Your task to perform on an android device: Open Google Maps Image 0: 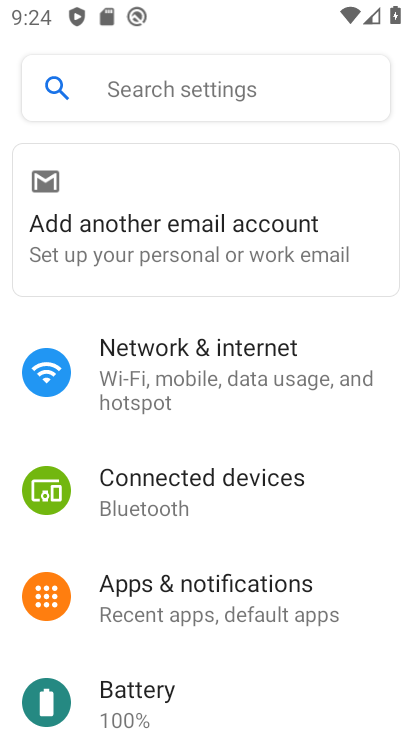
Step 0: press home button
Your task to perform on an android device: Open Google Maps Image 1: 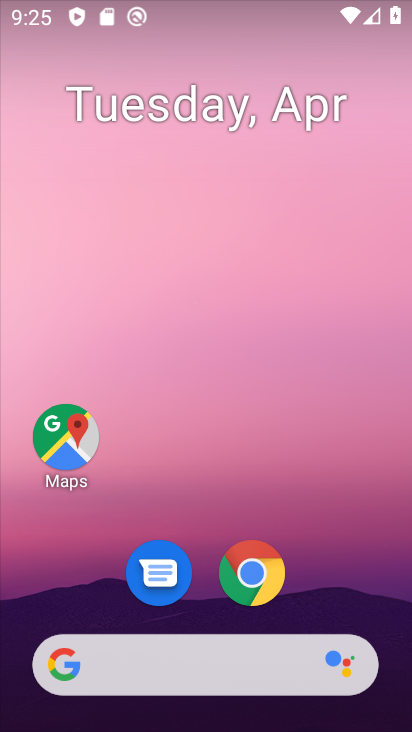
Step 1: click (67, 439)
Your task to perform on an android device: Open Google Maps Image 2: 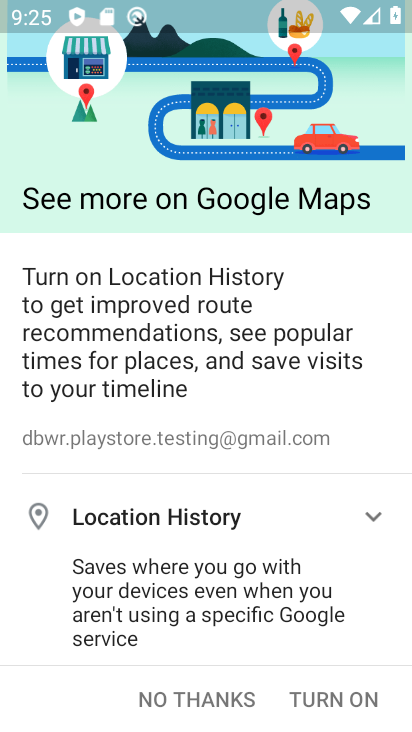
Step 2: click (200, 698)
Your task to perform on an android device: Open Google Maps Image 3: 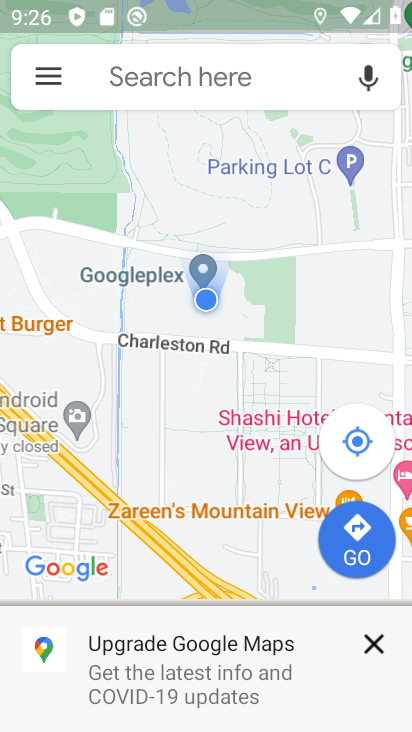
Step 3: task complete